Your task to perform on an android device: open app "Paramount+ | Peak Streaming" (install if not already installed) Image 0: 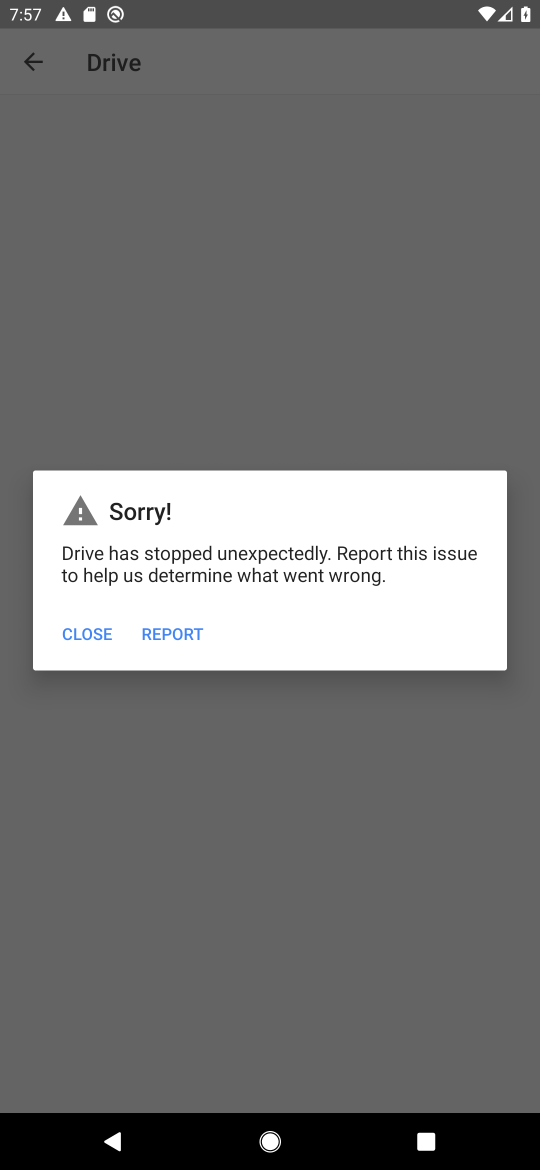
Step 0: press home button
Your task to perform on an android device: open app "Paramount+ | Peak Streaming" (install if not already installed) Image 1: 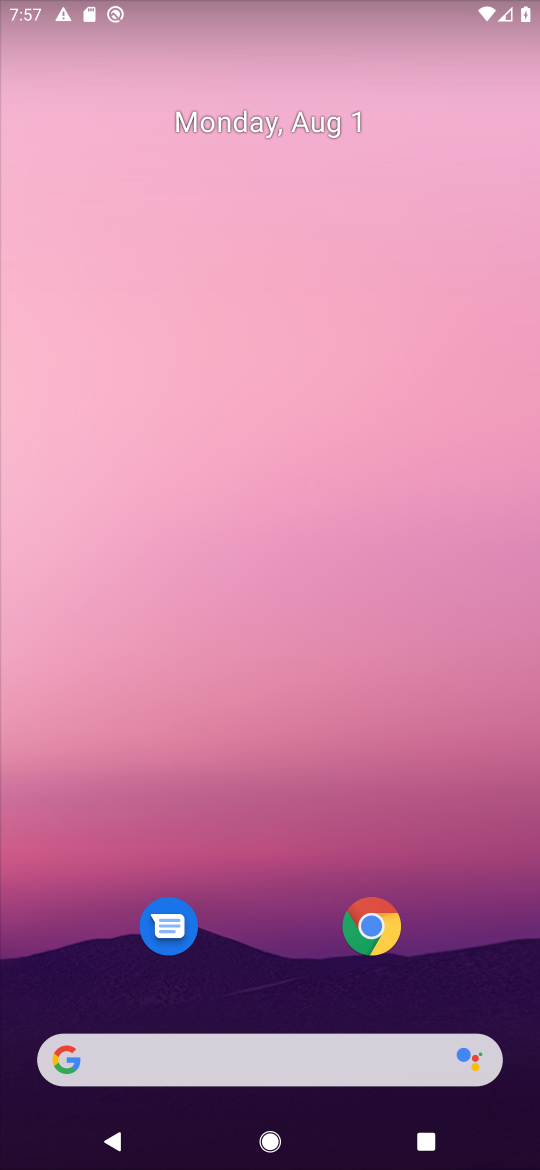
Step 1: drag from (287, 994) to (134, 173)
Your task to perform on an android device: open app "Paramount+ | Peak Streaming" (install if not already installed) Image 2: 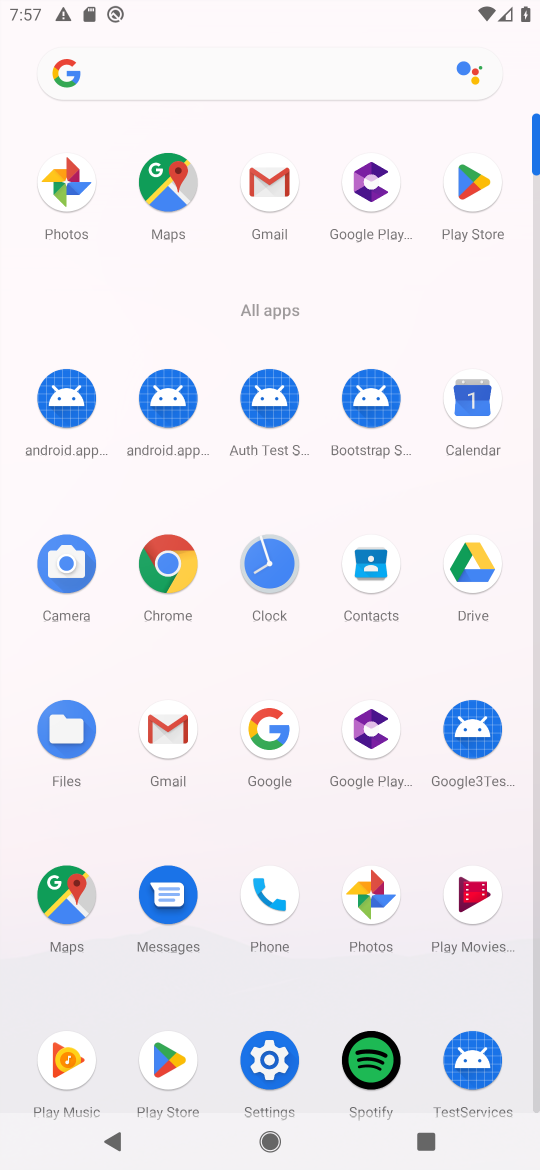
Step 2: click (469, 177)
Your task to perform on an android device: open app "Paramount+ | Peak Streaming" (install if not already installed) Image 3: 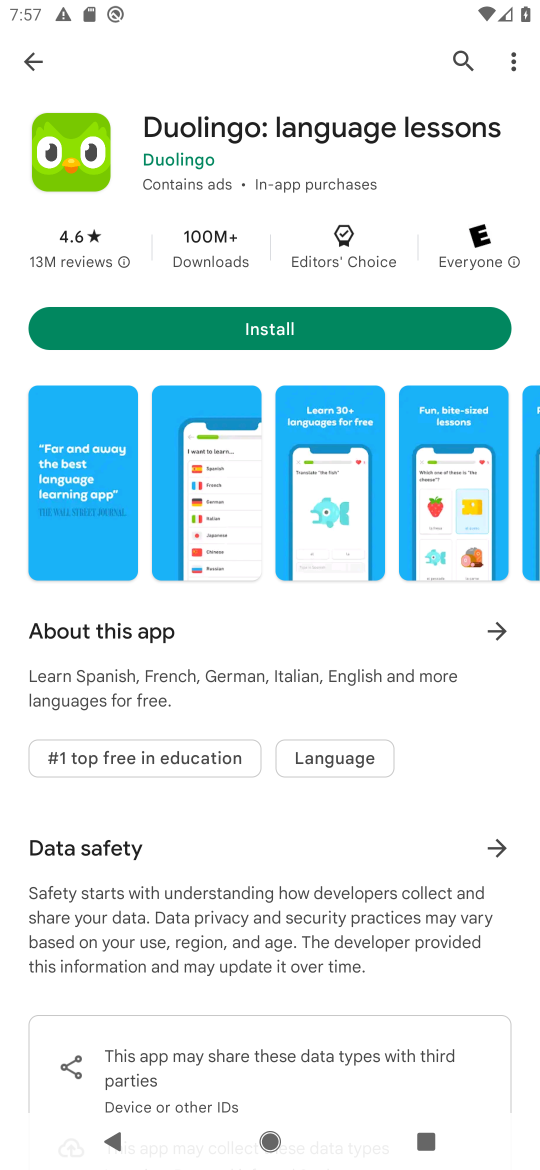
Step 3: click (456, 58)
Your task to perform on an android device: open app "Paramount+ | Peak Streaming" (install if not already installed) Image 4: 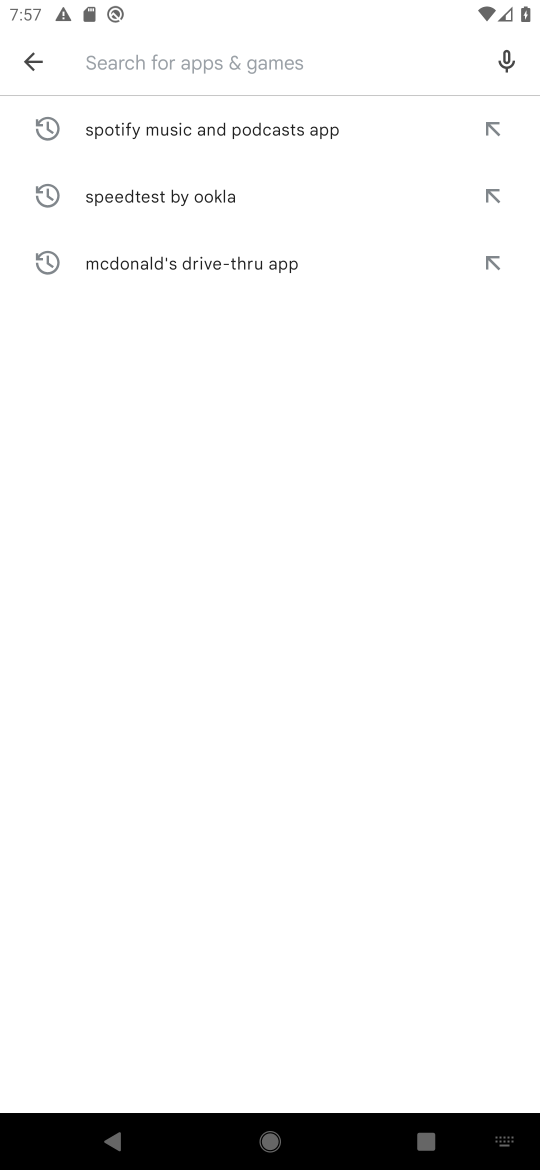
Step 4: type "Paramount+ | Peak Streaming"
Your task to perform on an android device: open app "Paramount+ | Peak Streaming" (install if not already installed) Image 5: 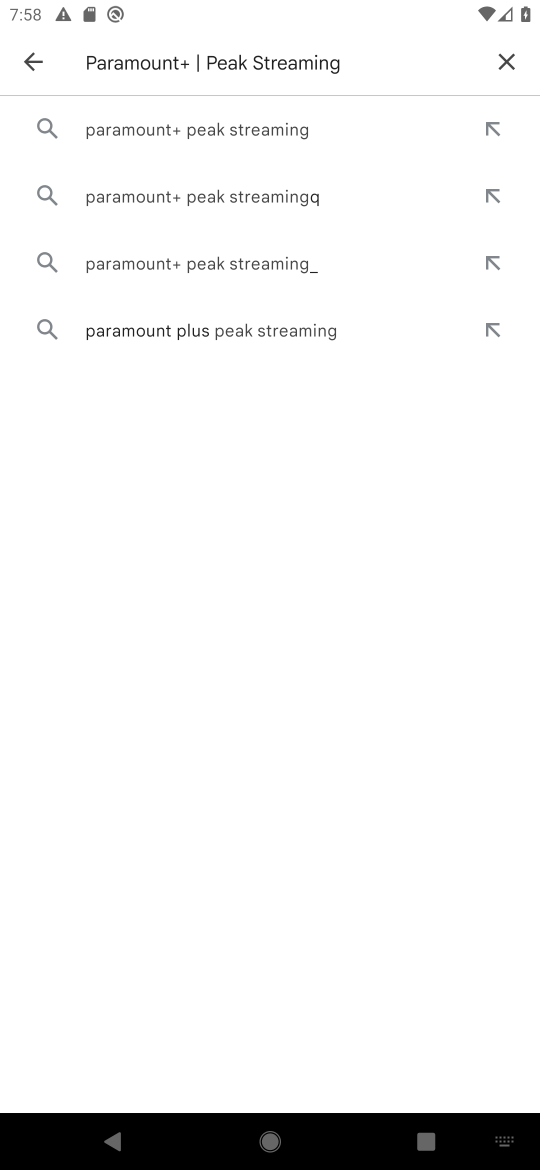
Step 5: click (257, 124)
Your task to perform on an android device: open app "Paramount+ | Peak Streaming" (install if not already installed) Image 6: 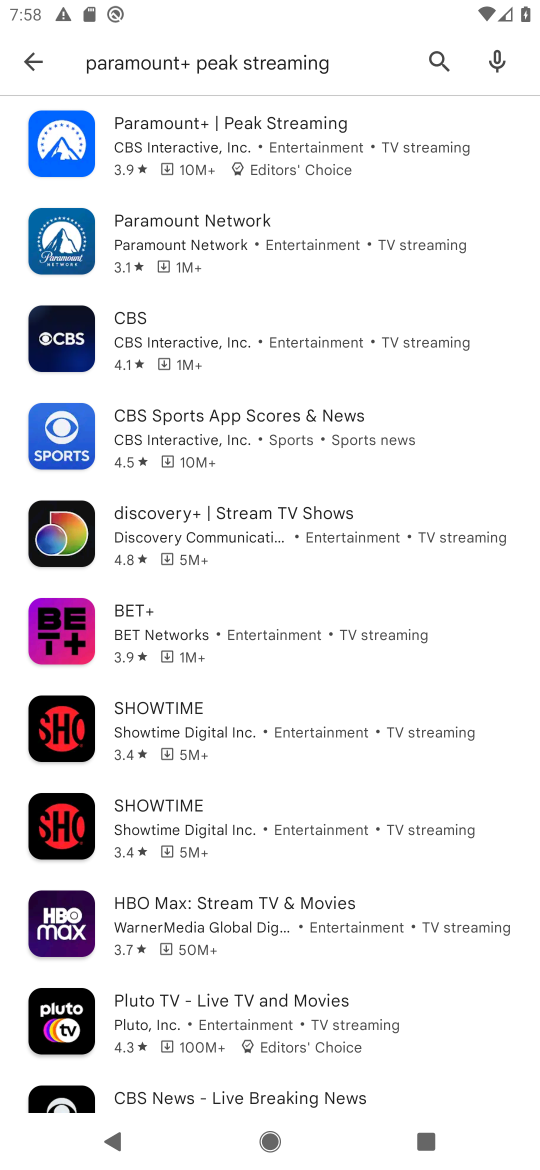
Step 6: click (169, 137)
Your task to perform on an android device: open app "Paramount+ | Peak Streaming" (install if not already installed) Image 7: 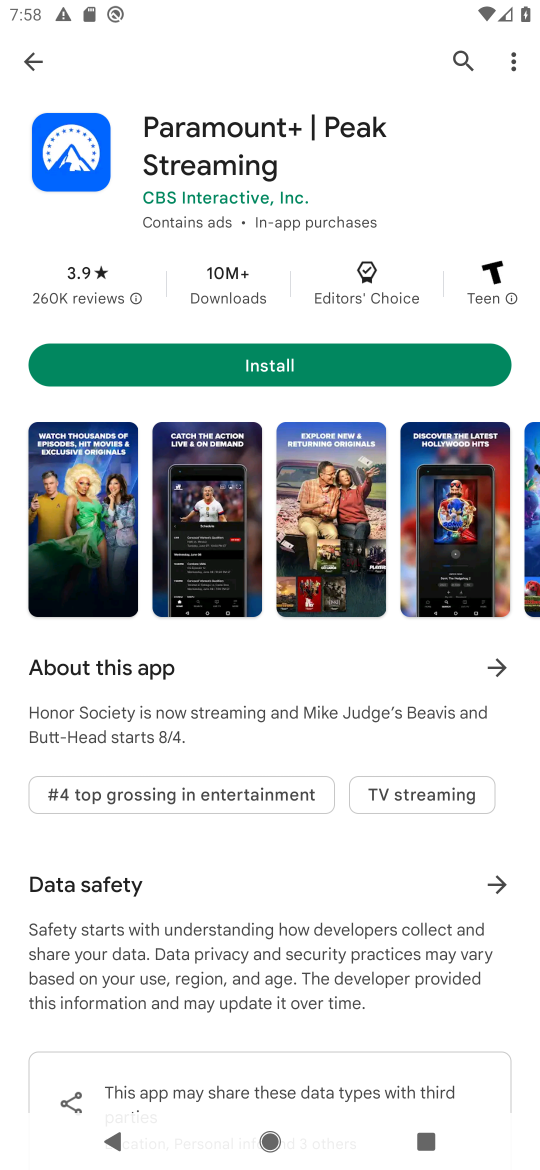
Step 7: click (273, 361)
Your task to perform on an android device: open app "Paramount+ | Peak Streaming" (install if not already installed) Image 8: 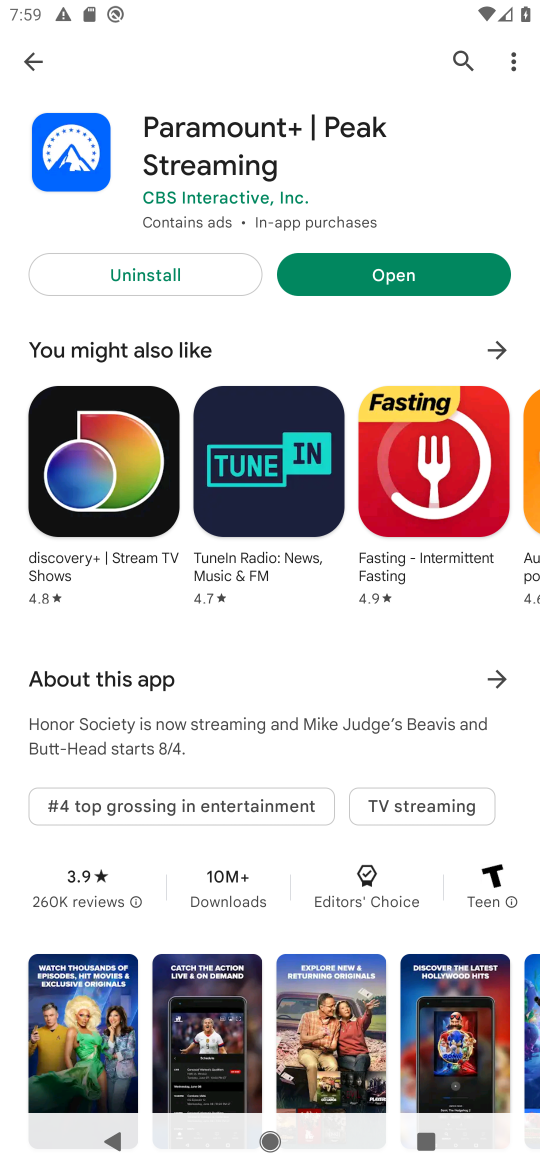
Step 8: click (399, 278)
Your task to perform on an android device: open app "Paramount+ | Peak Streaming" (install if not already installed) Image 9: 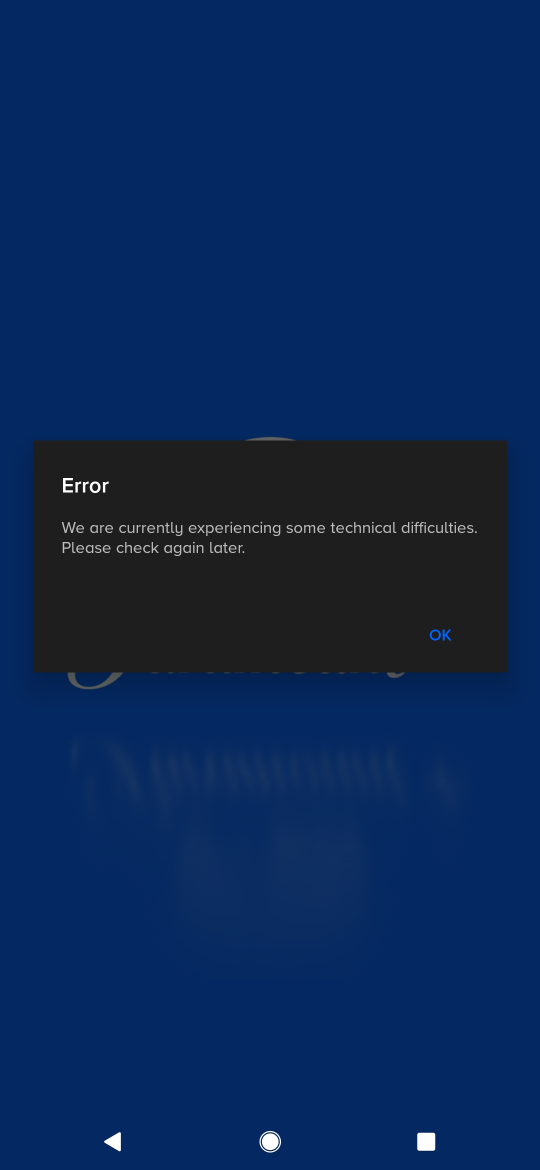
Step 9: click (435, 631)
Your task to perform on an android device: open app "Paramount+ | Peak Streaming" (install if not already installed) Image 10: 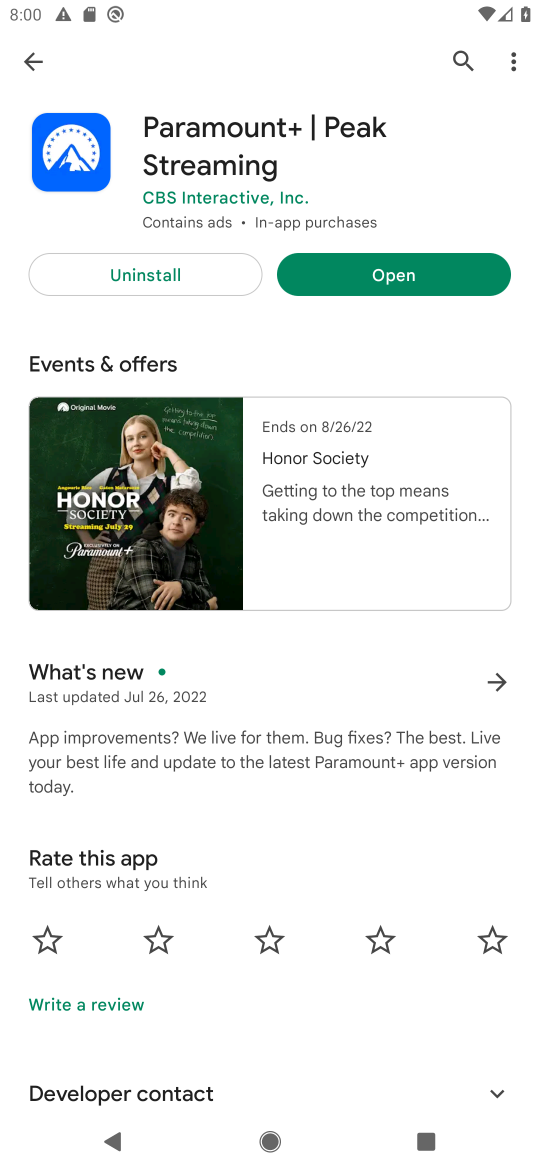
Step 10: click (381, 277)
Your task to perform on an android device: open app "Paramount+ | Peak Streaming" (install if not already installed) Image 11: 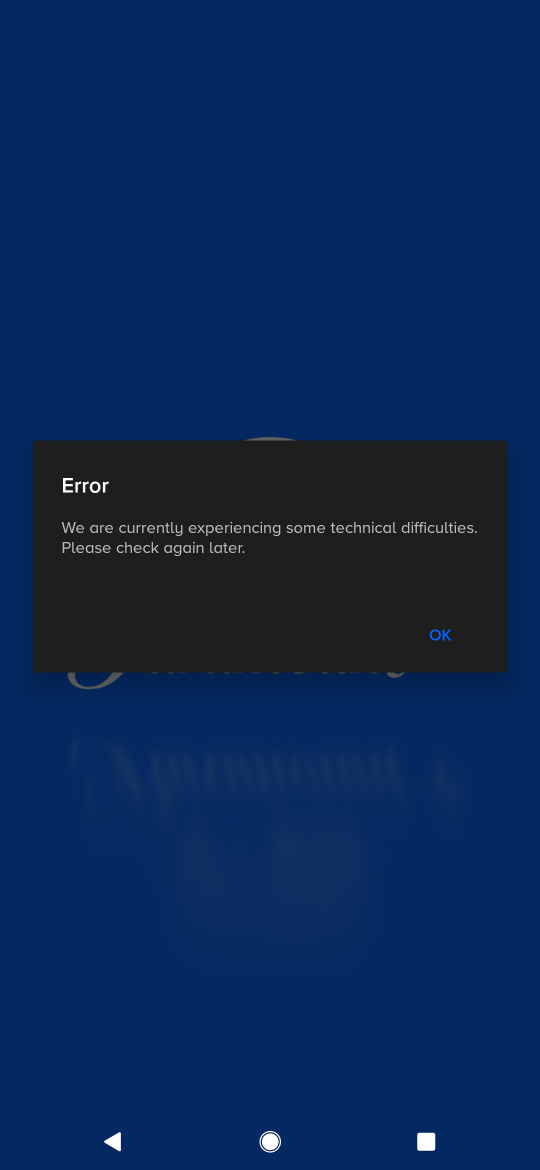
Step 11: task complete